Your task to perform on an android device: toggle sleep mode Image 0: 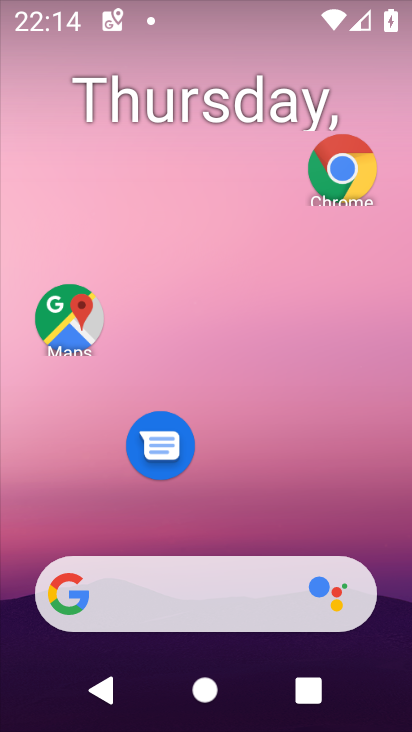
Step 0: drag from (206, 514) to (210, 68)
Your task to perform on an android device: toggle sleep mode Image 1: 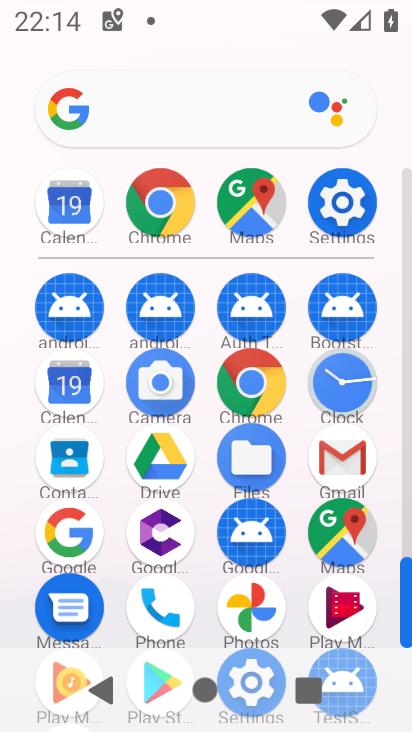
Step 1: click (348, 178)
Your task to perform on an android device: toggle sleep mode Image 2: 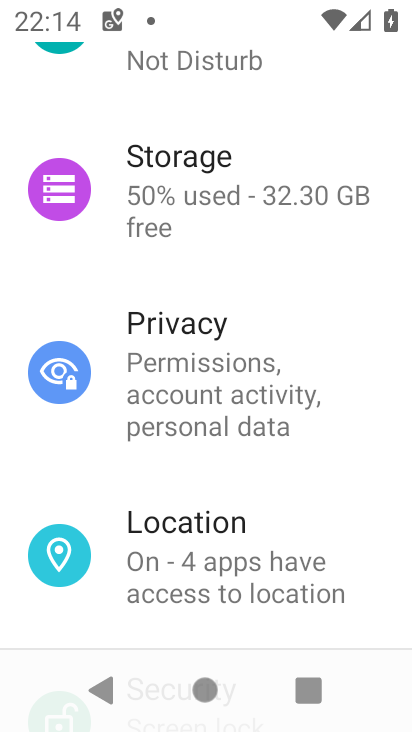
Step 2: drag from (208, 534) to (306, 728)
Your task to perform on an android device: toggle sleep mode Image 3: 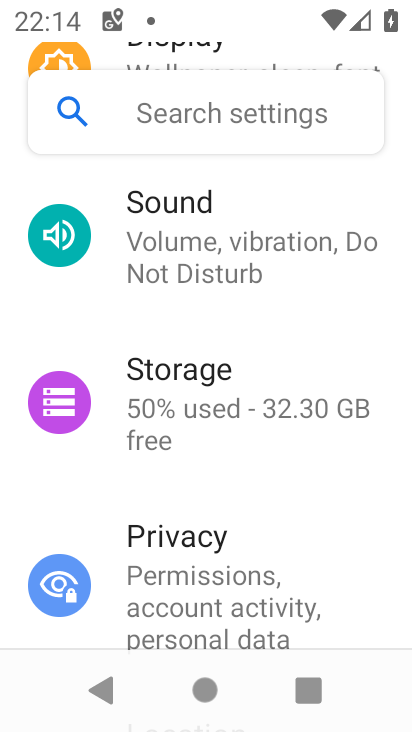
Step 3: drag from (214, 262) to (300, 731)
Your task to perform on an android device: toggle sleep mode Image 4: 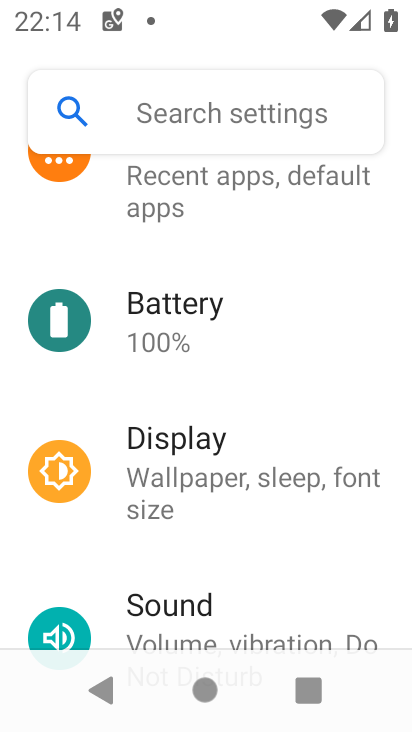
Step 4: click (187, 465)
Your task to perform on an android device: toggle sleep mode Image 5: 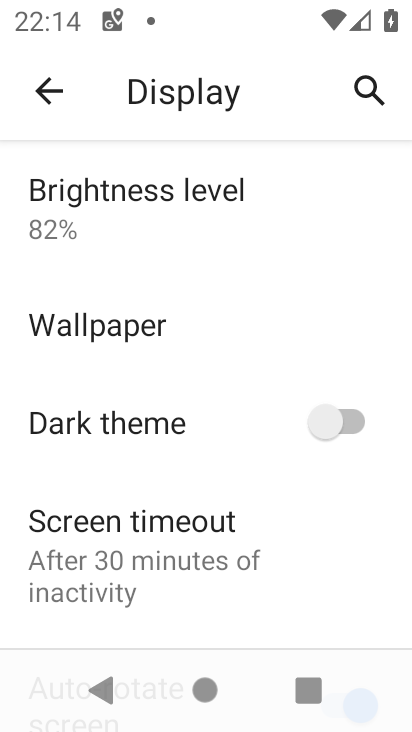
Step 5: click (180, 536)
Your task to perform on an android device: toggle sleep mode Image 6: 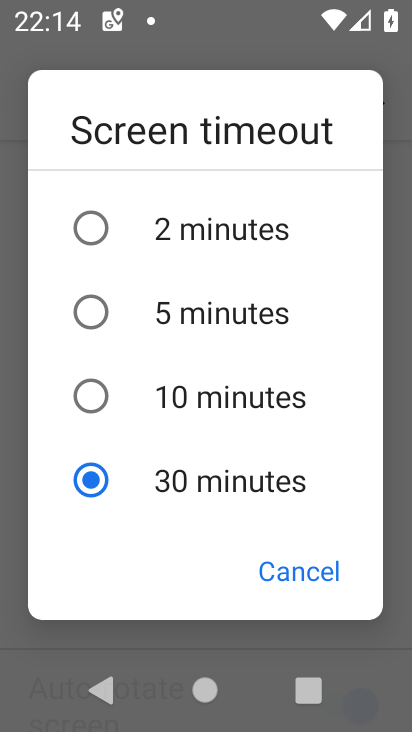
Step 6: task complete